Your task to perform on an android device: set an alarm Image 0: 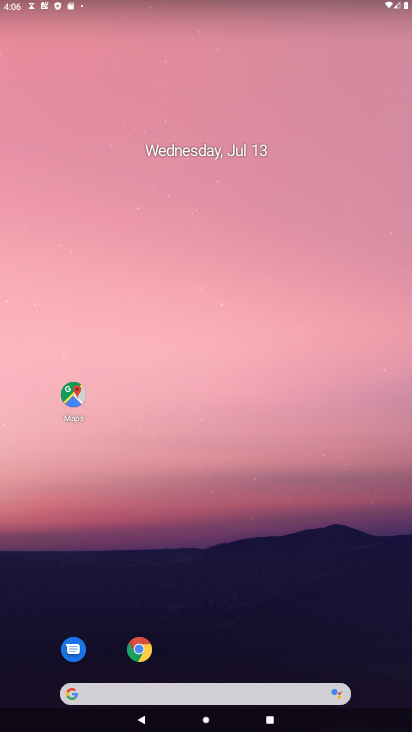
Step 0: drag from (236, 702) to (222, 74)
Your task to perform on an android device: set an alarm Image 1: 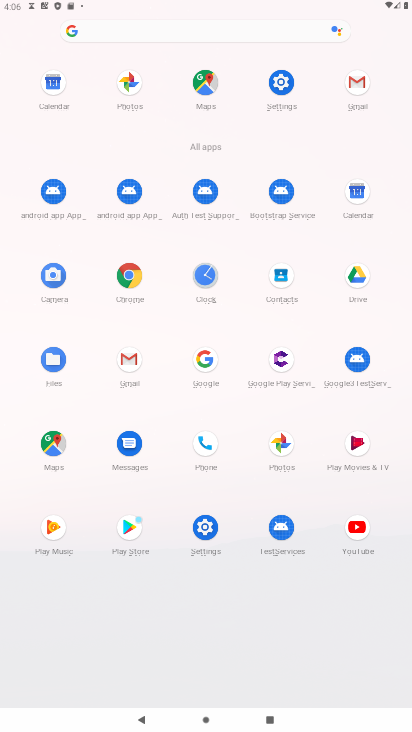
Step 1: click (197, 276)
Your task to perform on an android device: set an alarm Image 2: 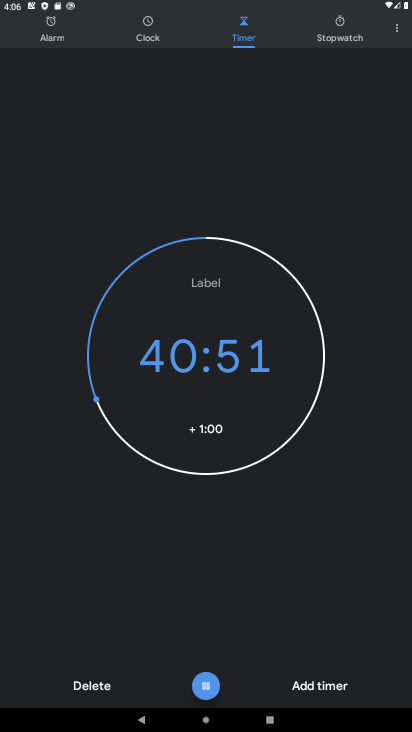
Step 2: click (51, 36)
Your task to perform on an android device: set an alarm Image 3: 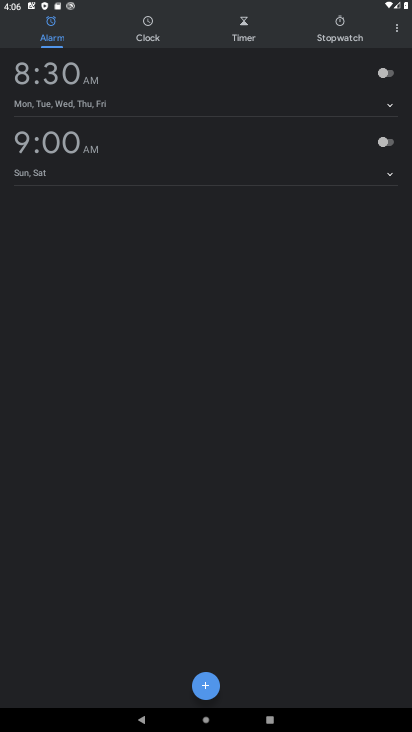
Step 3: click (206, 682)
Your task to perform on an android device: set an alarm Image 4: 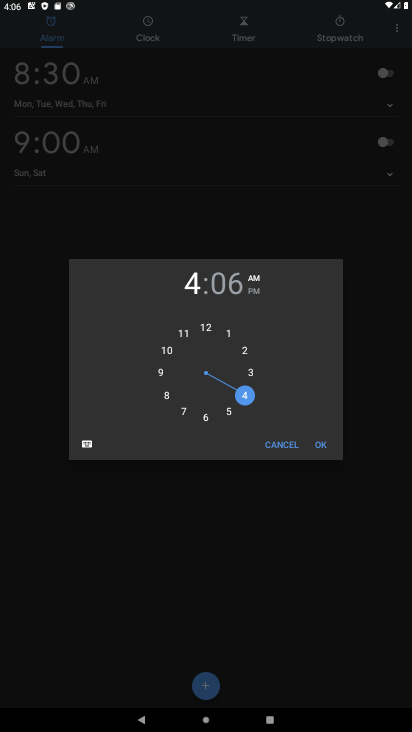
Step 4: click (208, 416)
Your task to perform on an android device: set an alarm Image 5: 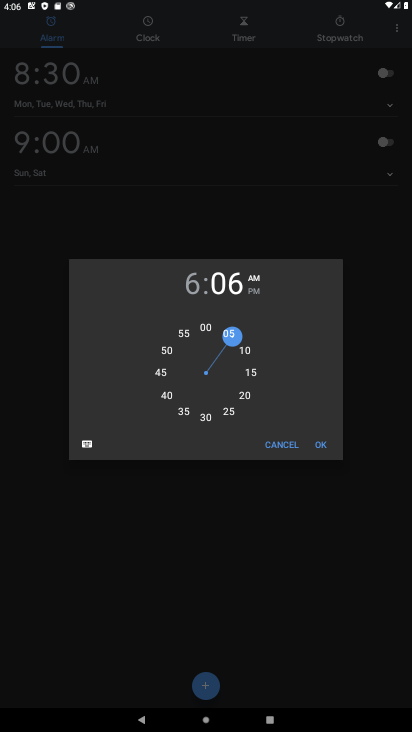
Step 5: click (317, 442)
Your task to perform on an android device: set an alarm Image 6: 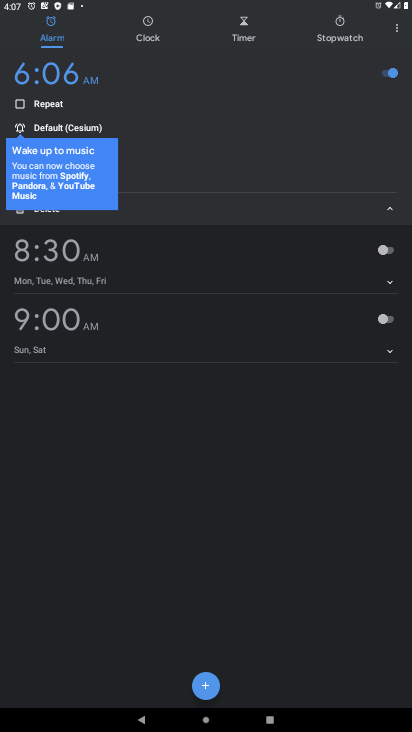
Step 6: click (206, 685)
Your task to perform on an android device: set an alarm Image 7: 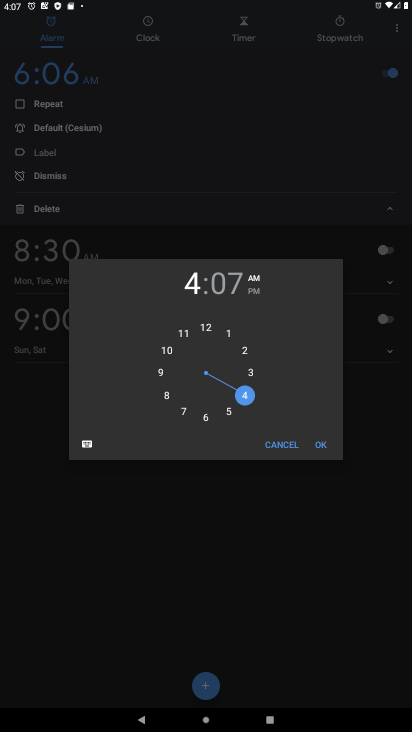
Step 7: click (210, 420)
Your task to perform on an android device: set an alarm Image 8: 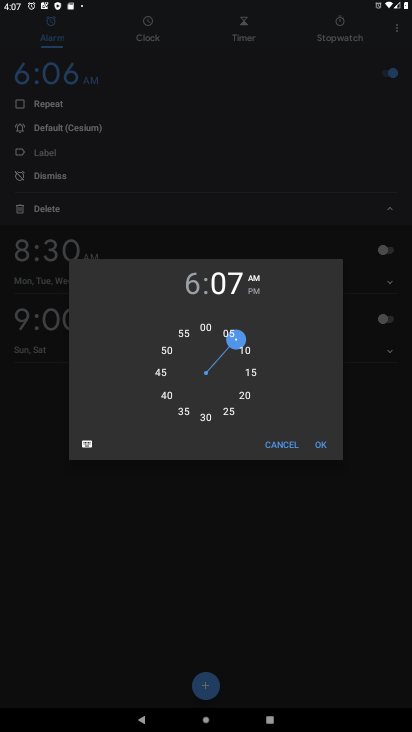
Step 8: click (320, 443)
Your task to perform on an android device: set an alarm Image 9: 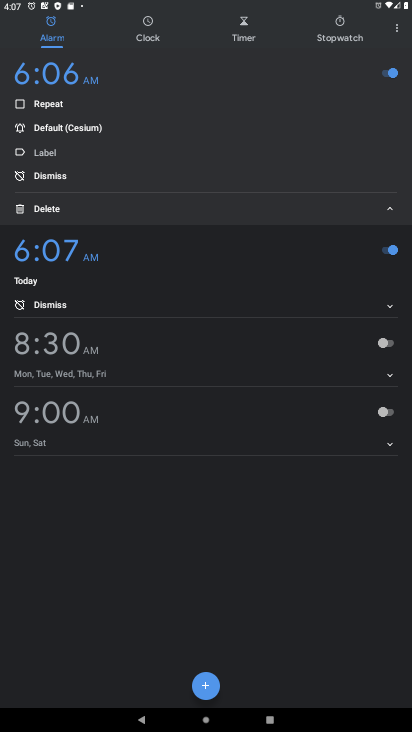
Step 9: task complete